Your task to perform on an android device: Search for Mexican restaurants on Maps Image 0: 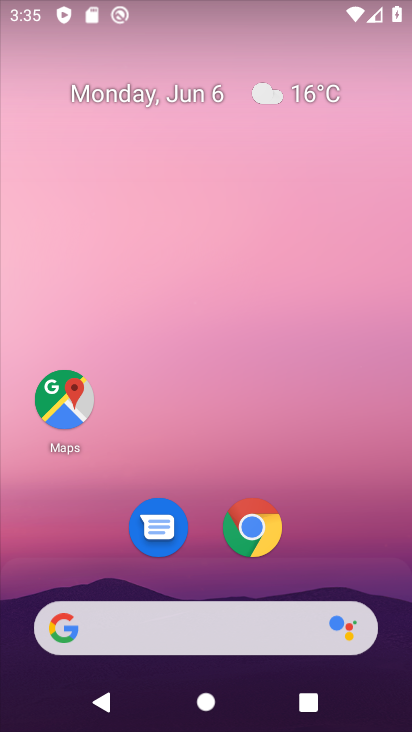
Step 0: click (55, 409)
Your task to perform on an android device: Search for Mexican restaurants on Maps Image 1: 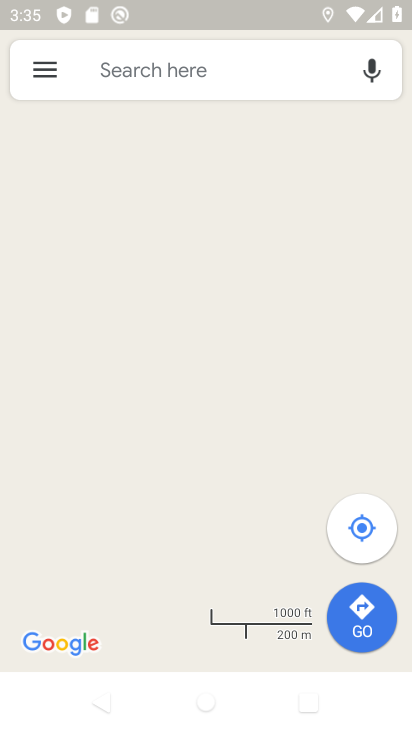
Step 1: click (162, 86)
Your task to perform on an android device: Search for Mexican restaurants on Maps Image 2: 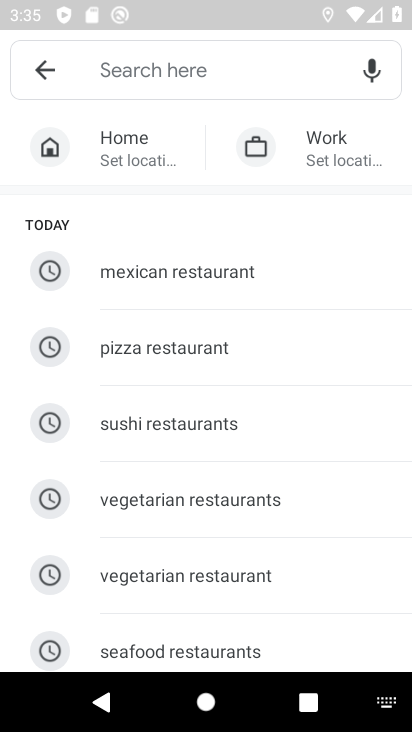
Step 2: type "Mexican restaurants"
Your task to perform on an android device: Search for Mexican restaurants on Maps Image 3: 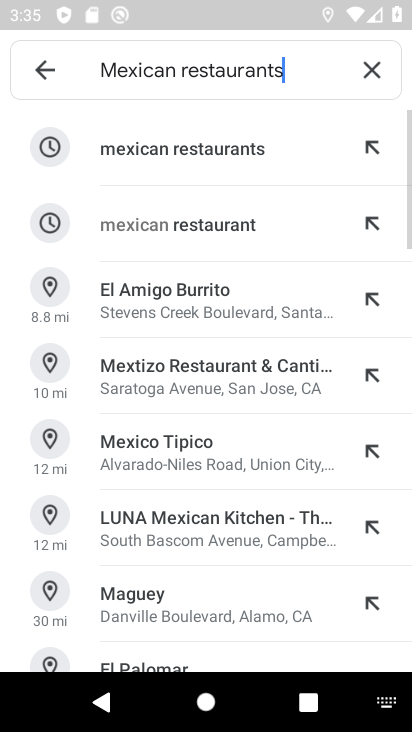
Step 3: click (227, 164)
Your task to perform on an android device: Search for Mexican restaurants on Maps Image 4: 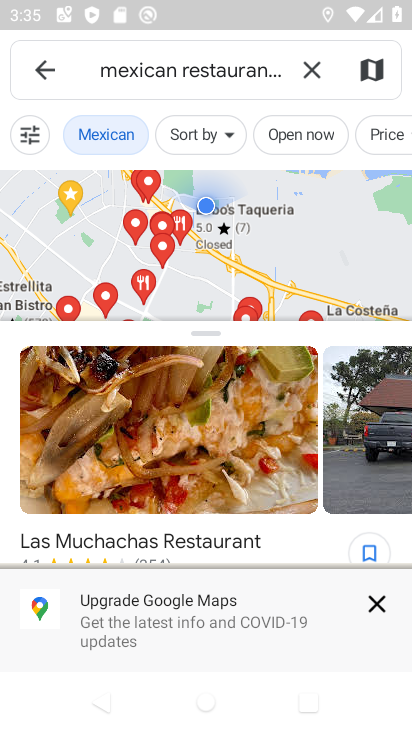
Step 4: task complete